Your task to perform on an android device: open a new tab in the chrome app Image 0: 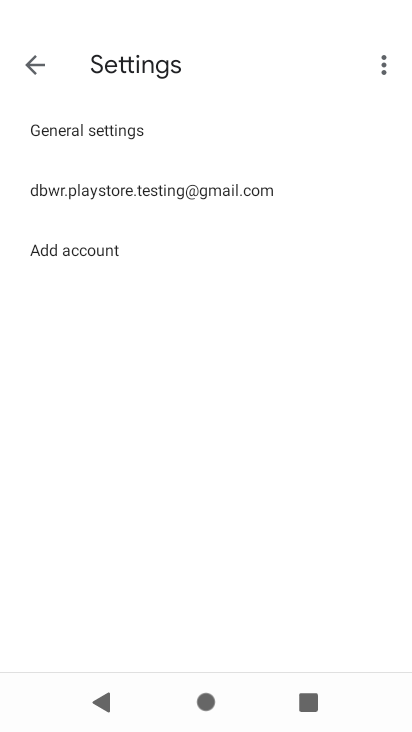
Step 0: press home button
Your task to perform on an android device: open a new tab in the chrome app Image 1: 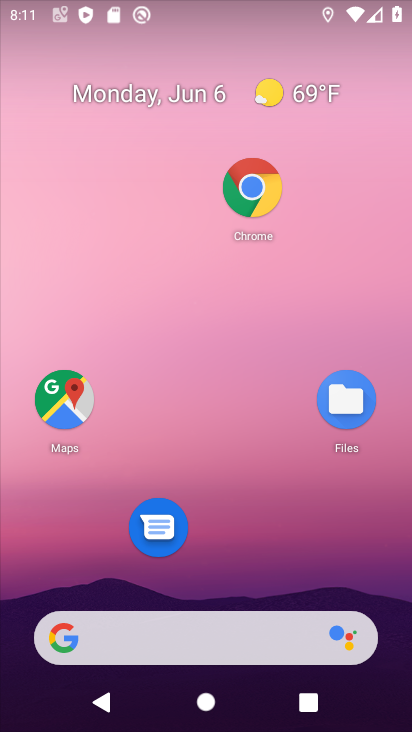
Step 1: click (255, 188)
Your task to perform on an android device: open a new tab in the chrome app Image 2: 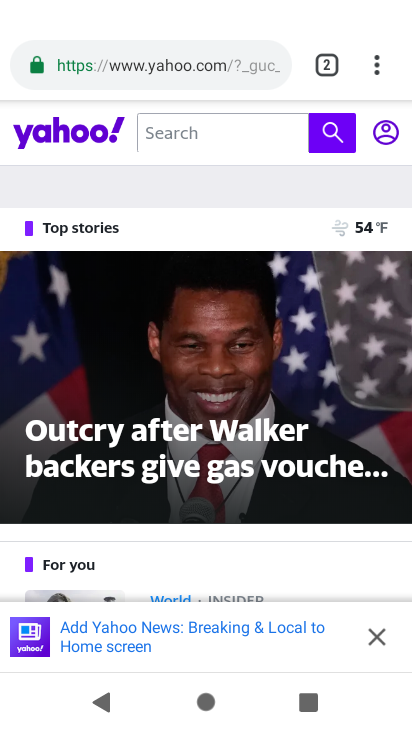
Step 2: click (321, 62)
Your task to perform on an android device: open a new tab in the chrome app Image 3: 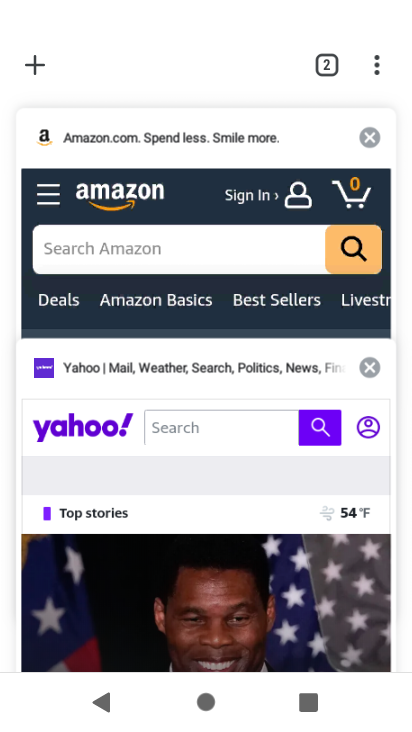
Step 3: click (34, 71)
Your task to perform on an android device: open a new tab in the chrome app Image 4: 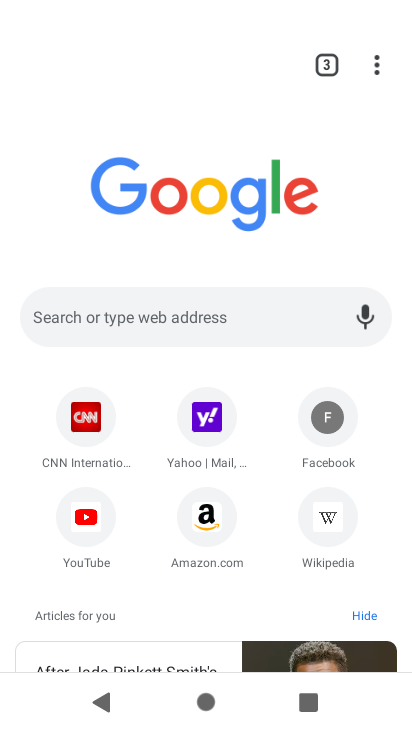
Step 4: task complete